Your task to perform on an android device: Turn off the flashlight Image 0: 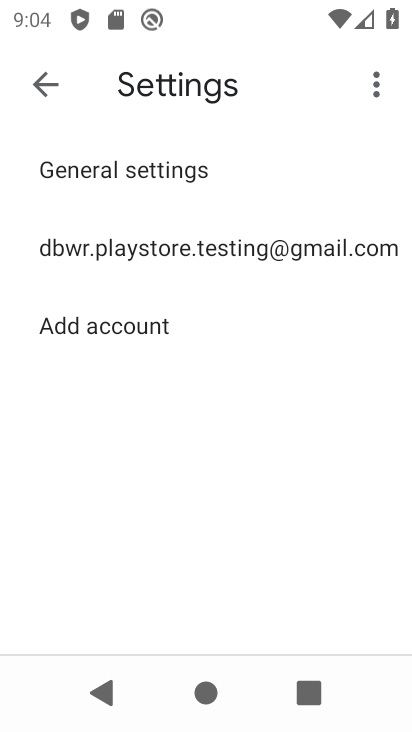
Step 0: press home button
Your task to perform on an android device: Turn off the flashlight Image 1: 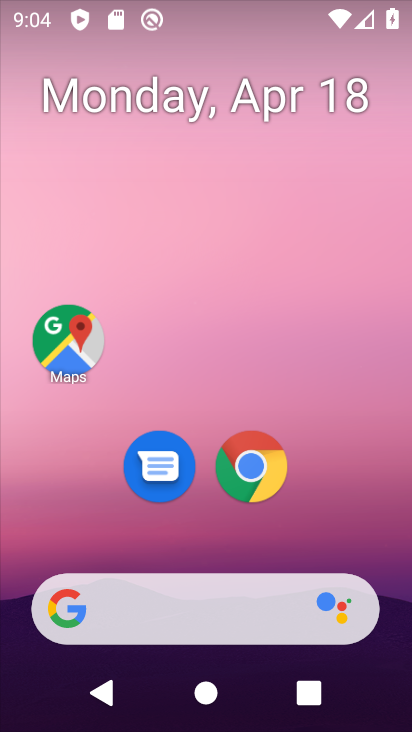
Step 1: task complete